Your task to perform on an android device: find snoozed emails in the gmail app Image 0: 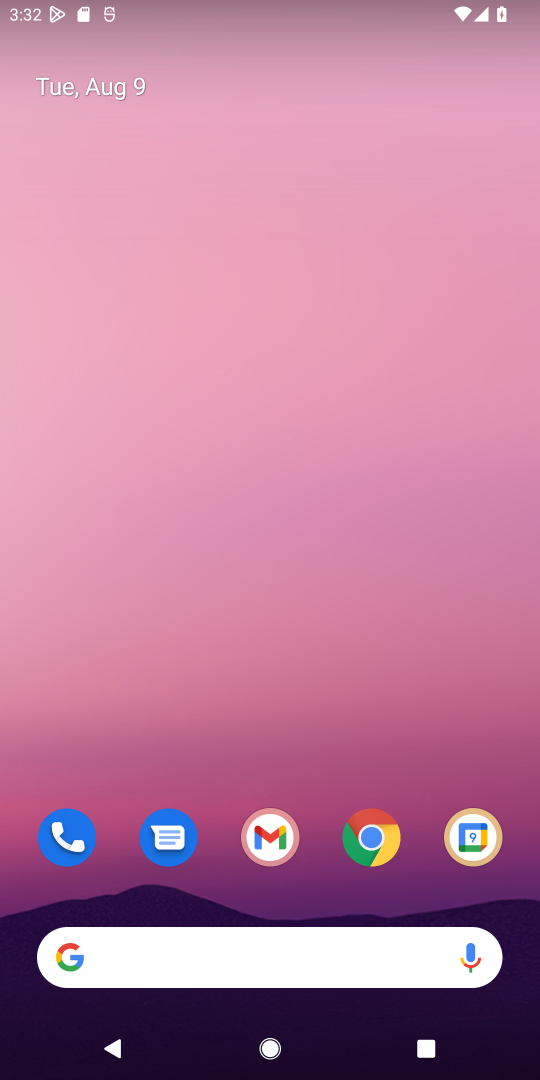
Step 0: drag from (326, 870) to (384, 215)
Your task to perform on an android device: find snoozed emails in the gmail app Image 1: 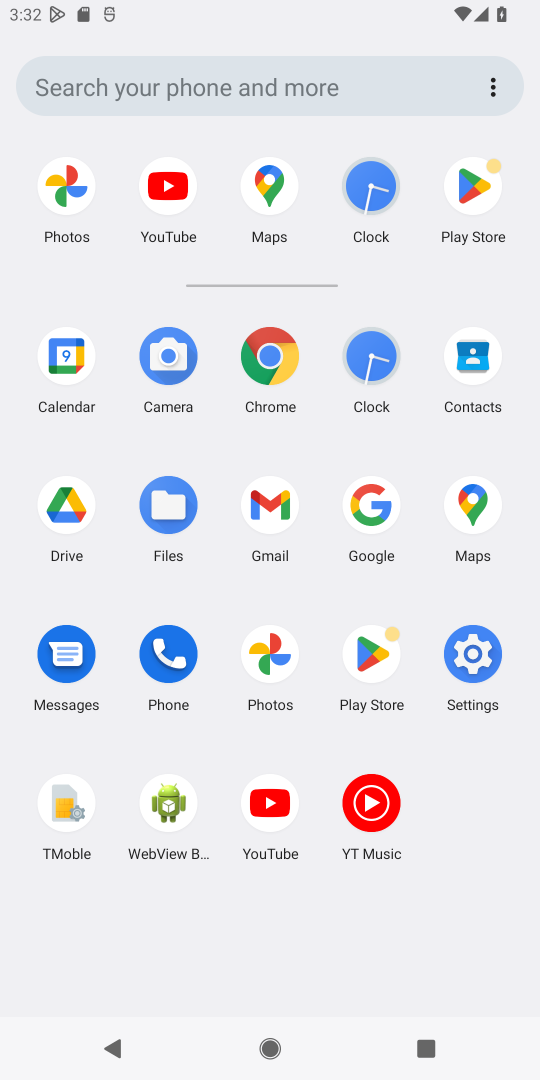
Step 1: click (275, 500)
Your task to perform on an android device: find snoozed emails in the gmail app Image 2: 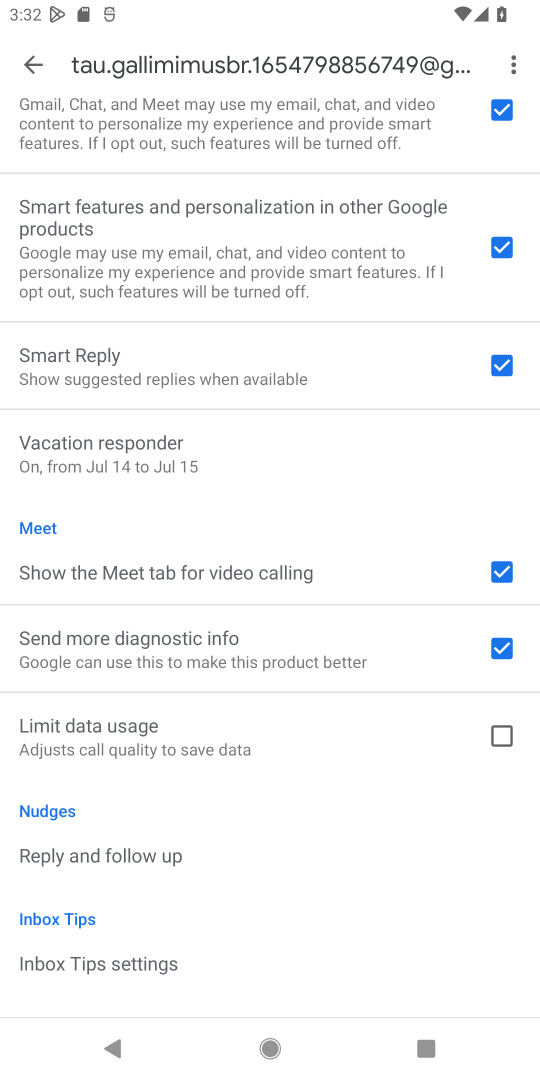
Step 2: click (36, 65)
Your task to perform on an android device: find snoozed emails in the gmail app Image 3: 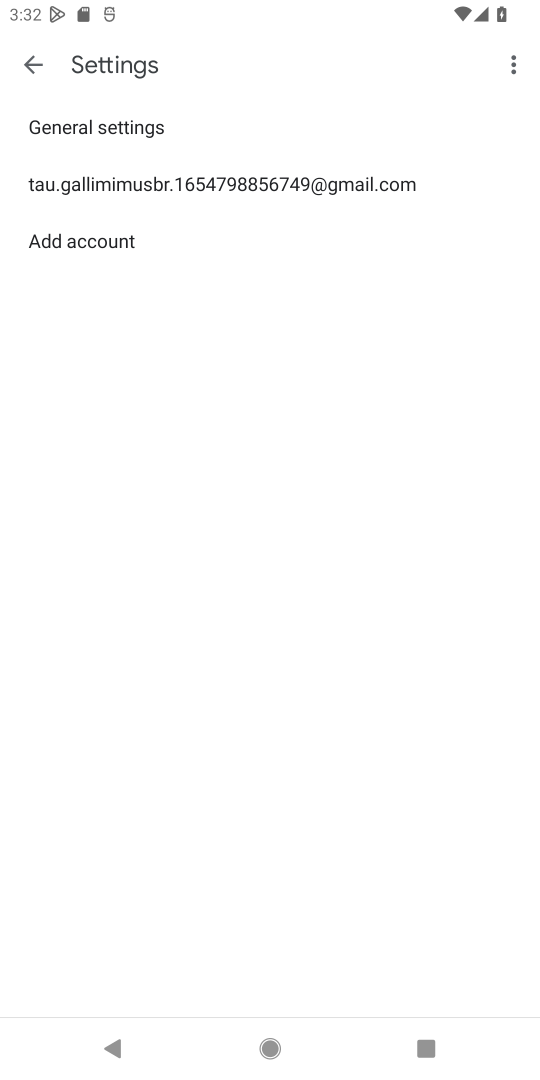
Step 3: click (31, 43)
Your task to perform on an android device: find snoozed emails in the gmail app Image 4: 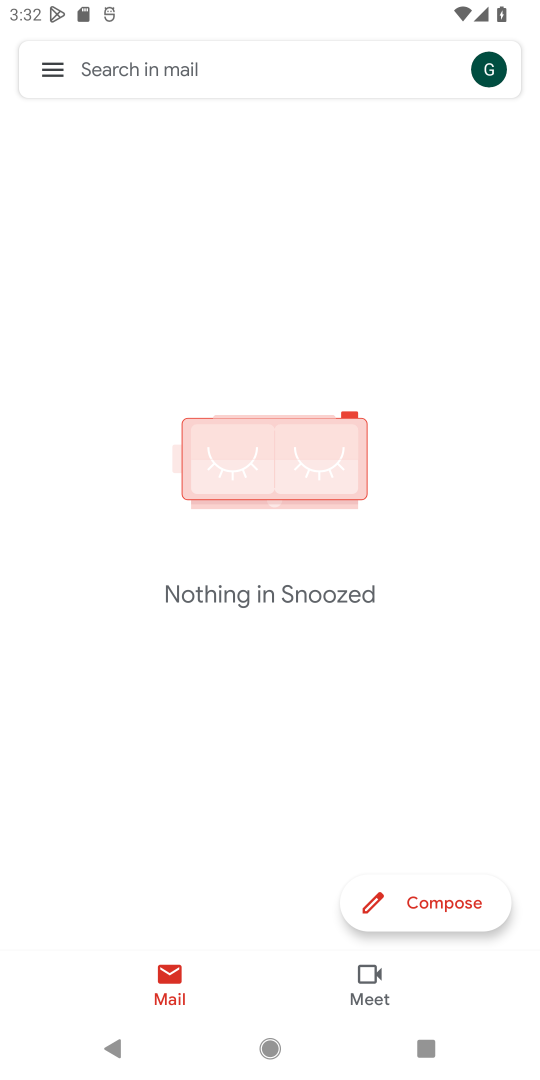
Step 4: click (66, 76)
Your task to perform on an android device: find snoozed emails in the gmail app Image 5: 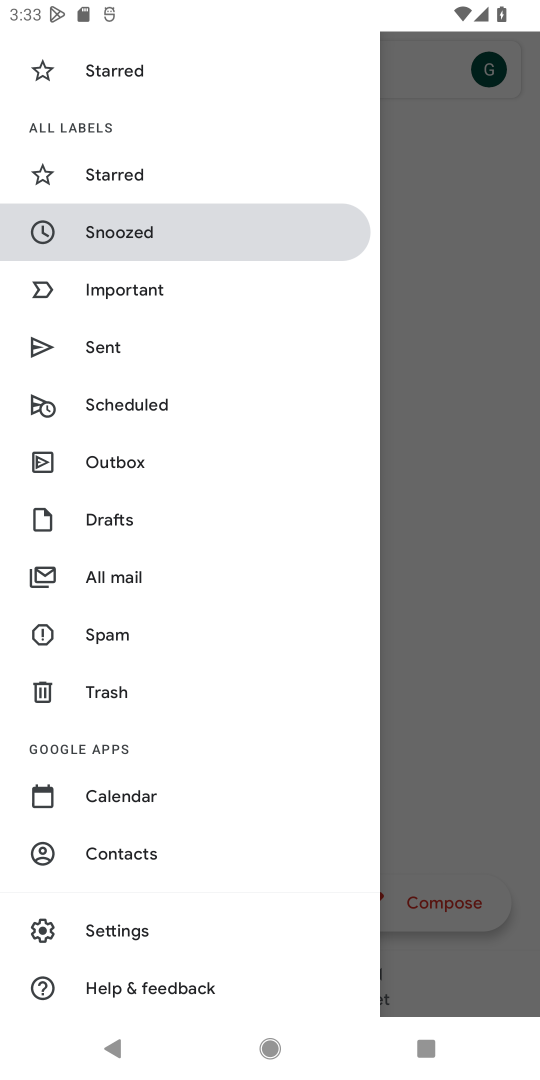
Step 5: click (190, 206)
Your task to perform on an android device: find snoozed emails in the gmail app Image 6: 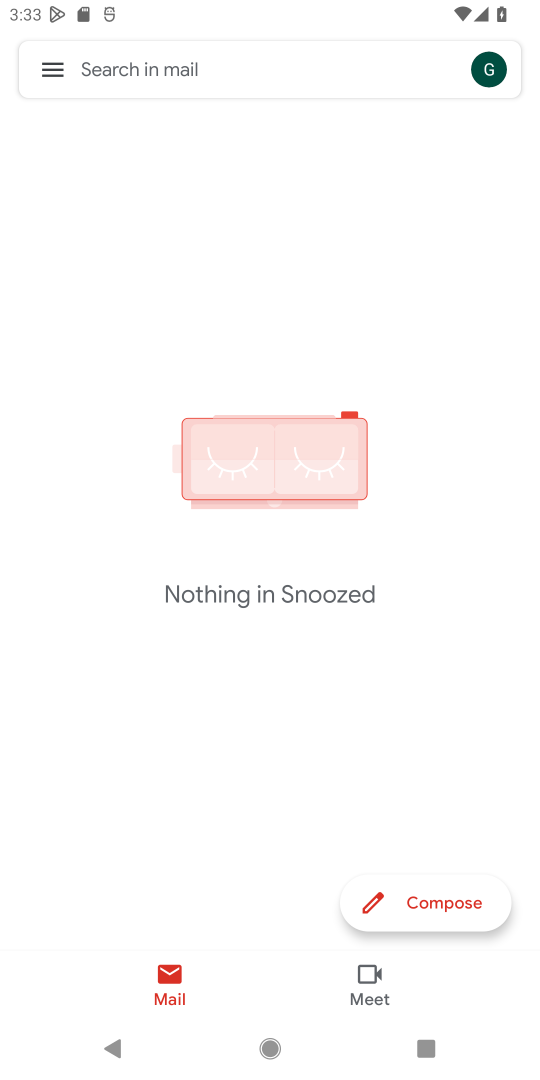
Step 6: task complete